Your task to perform on an android device: turn off data saver in the chrome app Image 0: 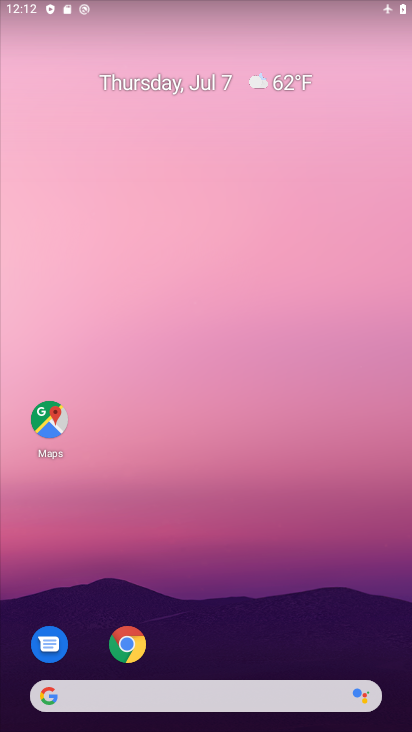
Step 0: click (111, 647)
Your task to perform on an android device: turn off data saver in the chrome app Image 1: 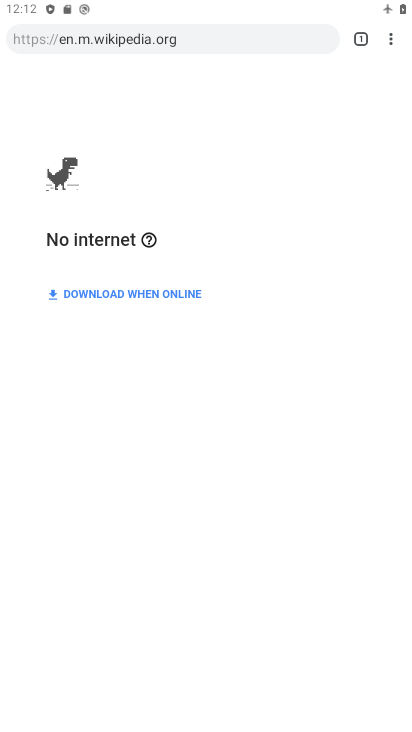
Step 1: click (386, 41)
Your task to perform on an android device: turn off data saver in the chrome app Image 2: 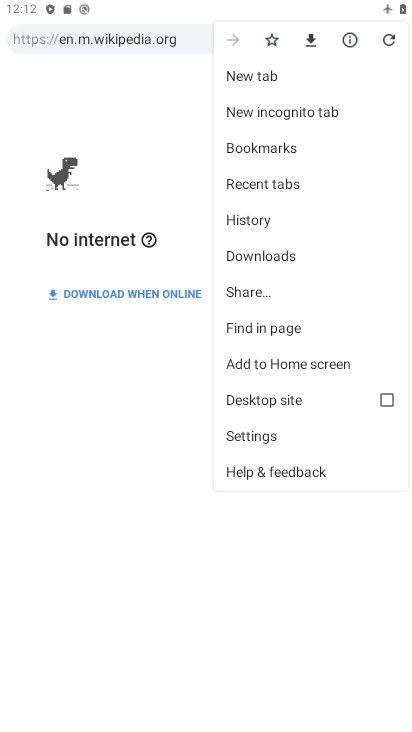
Step 2: click (285, 431)
Your task to perform on an android device: turn off data saver in the chrome app Image 3: 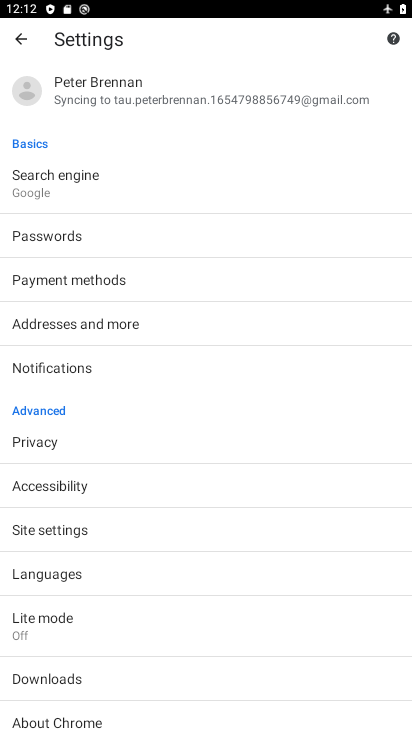
Step 3: click (88, 626)
Your task to perform on an android device: turn off data saver in the chrome app Image 4: 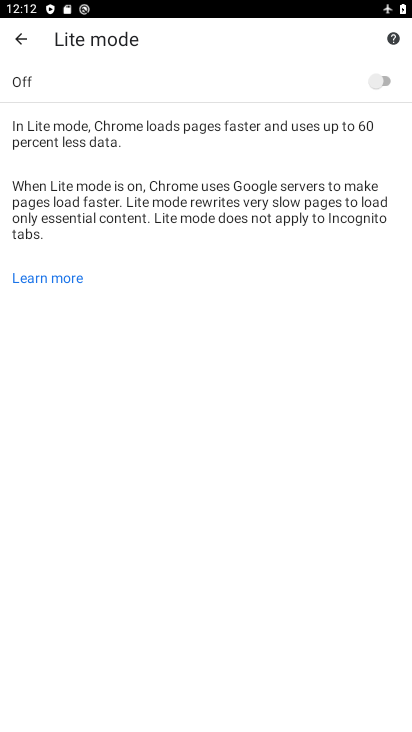
Step 4: task complete